Your task to perform on an android device: Go to Google Image 0: 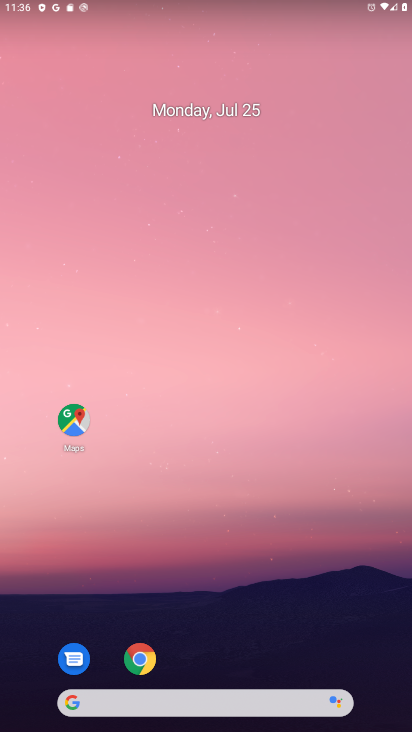
Step 0: click (75, 698)
Your task to perform on an android device: Go to Google Image 1: 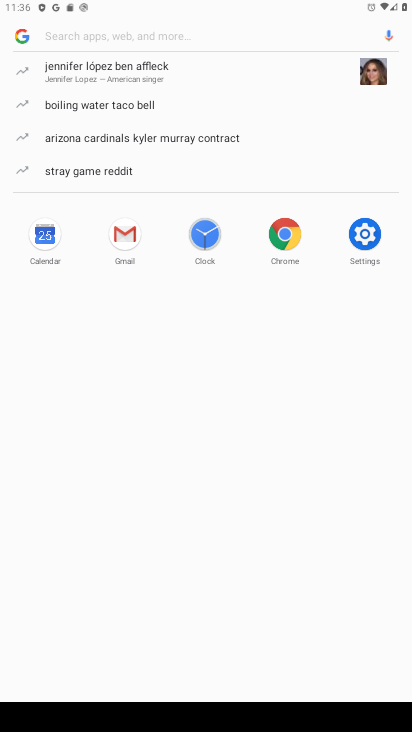
Step 1: click (25, 32)
Your task to perform on an android device: Go to Google Image 2: 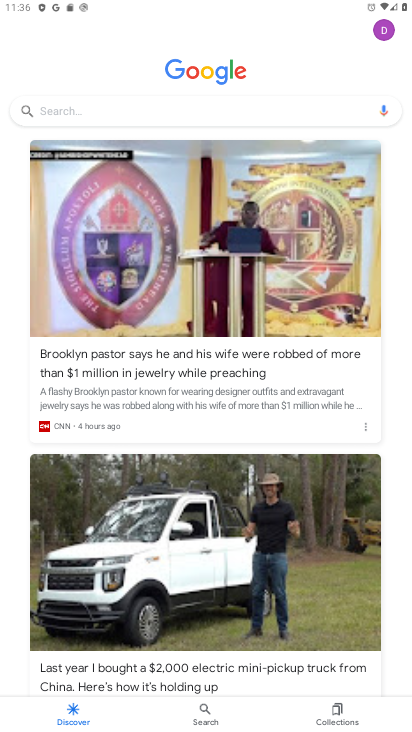
Step 2: task complete